Your task to perform on an android device: add a contact in the contacts app Image 0: 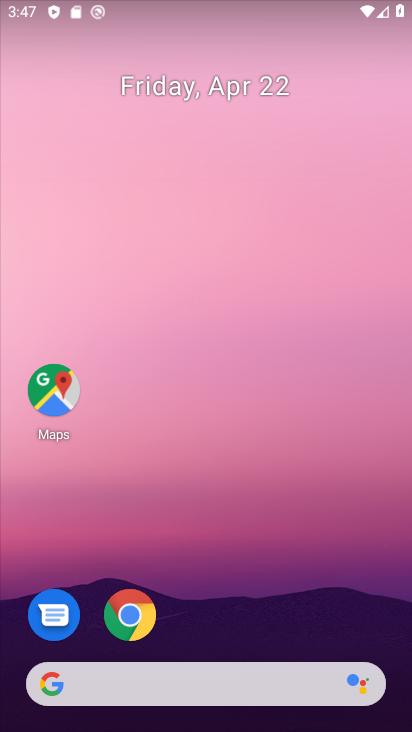
Step 0: drag from (274, 604) to (216, 177)
Your task to perform on an android device: add a contact in the contacts app Image 1: 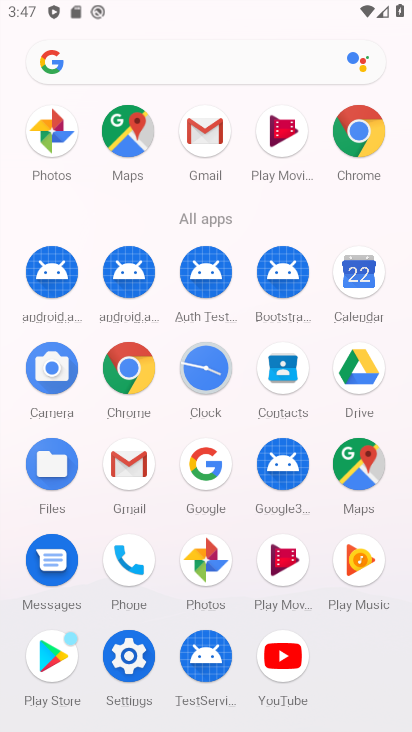
Step 1: click (295, 380)
Your task to perform on an android device: add a contact in the contacts app Image 2: 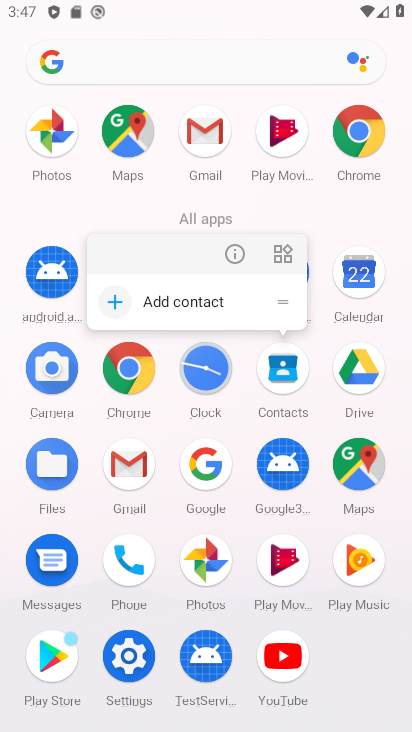
Step 2: click (289, 369)
Your task to perform on an android device: add a contact in the contacts app Image 3: 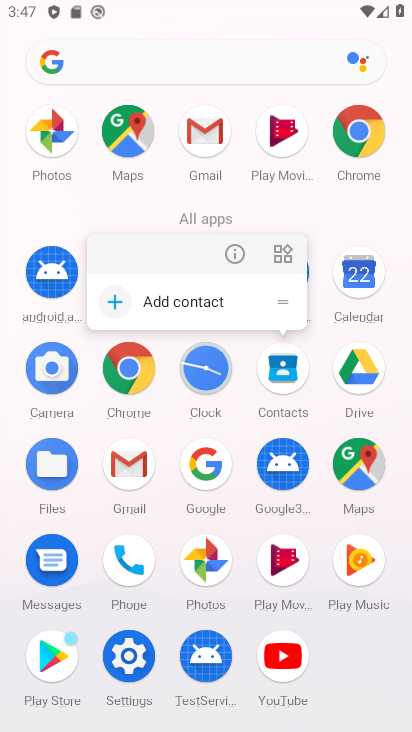
Step 3: click (288, 370)
Your task to perform on an android device: add a contact in the contacts app Image 4: 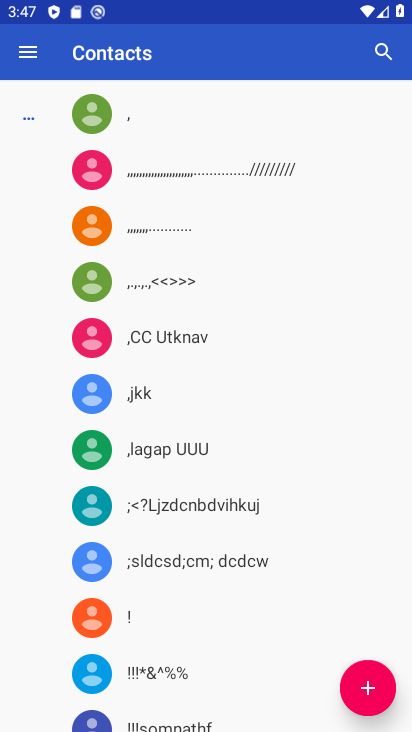
Step 4: click (379, 696)
Your task to perform on an android device: add a contact in the contacts app Image 5: 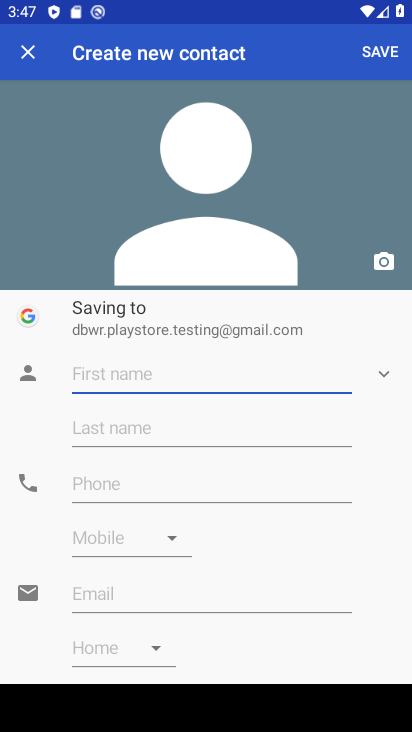
Step 5: click (238, 376)
Your task to perform on an android device: add a contact in the contacts app Image 6: 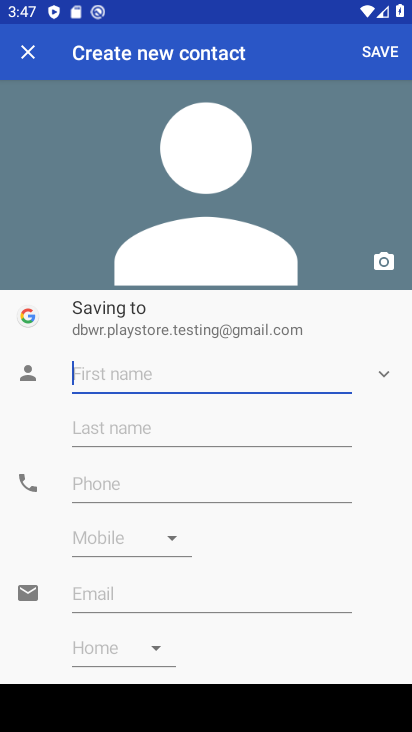
Step 6: type "Jhumki"
Your task to perform on an android device: add a contact in the contacts app Image 7: 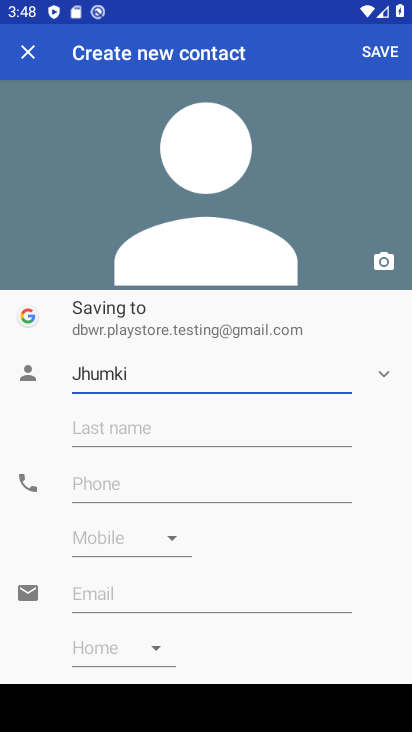
Step 7: click (191, 489)
Your task to perform on an android device: add a contact in the contacts app Image 8: 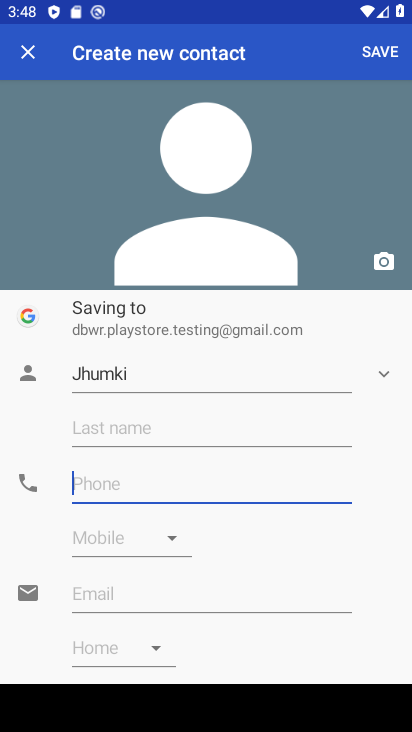
Step 8: type "9837509076"
Your task to perform on an android device: add a contact in the contacts app Image 9: 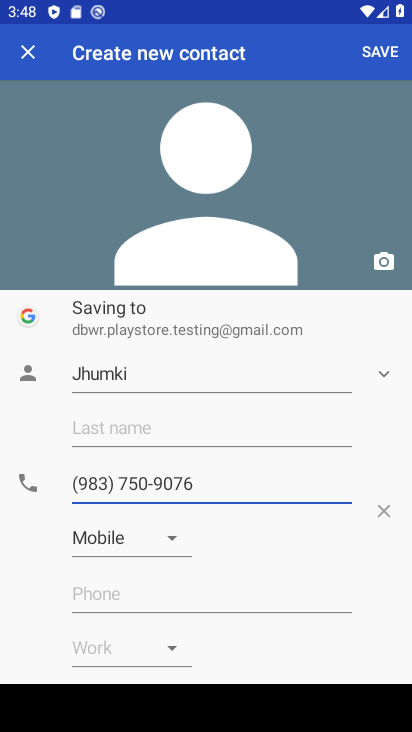
Step 9: click (385, 49)
Your task to perform on an android device: add a contact in the contacts app Image 10: 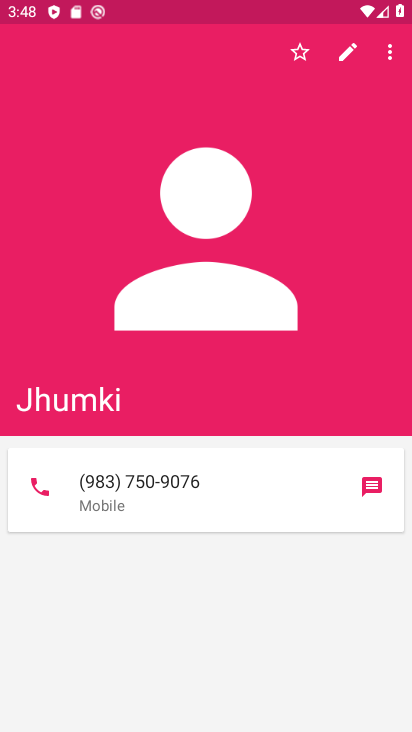
Step 10: task complete